Your task to perform on an android device: Open accessibility settings Image 0: 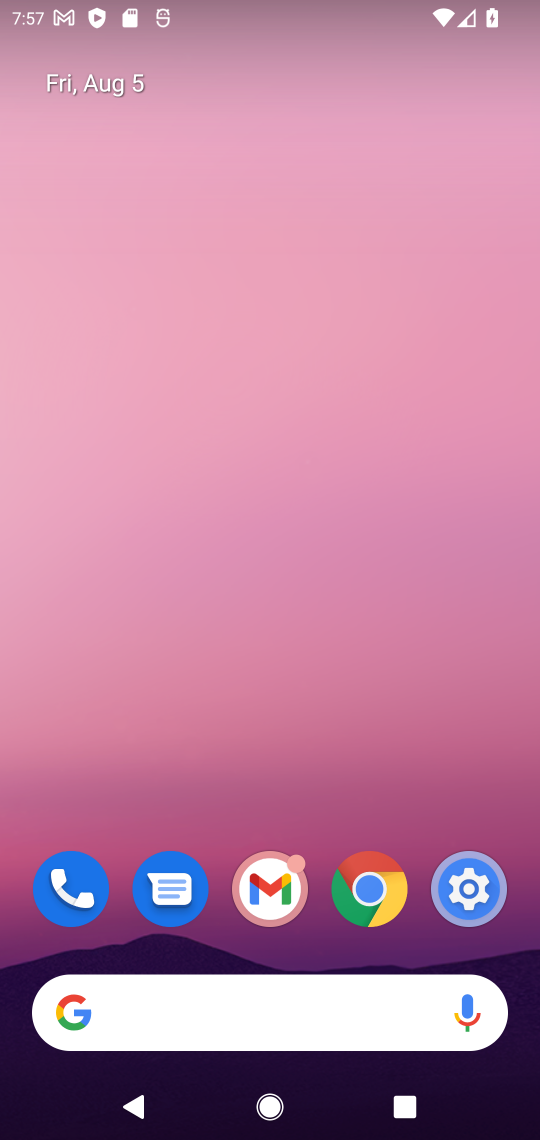
Step 0: drag from (232, 911) to (279, 241)
Your task to perform on an android device: Open accessibility settings Image 1: 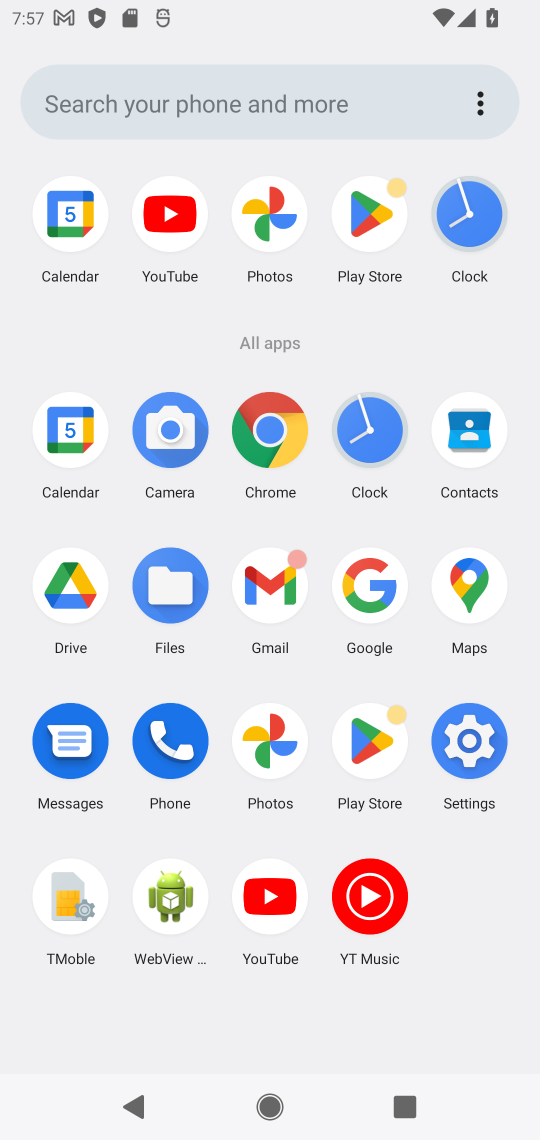
Step 1: click (474, 731)
Your task to perform on an android device: Open accessibility settings Image 2: 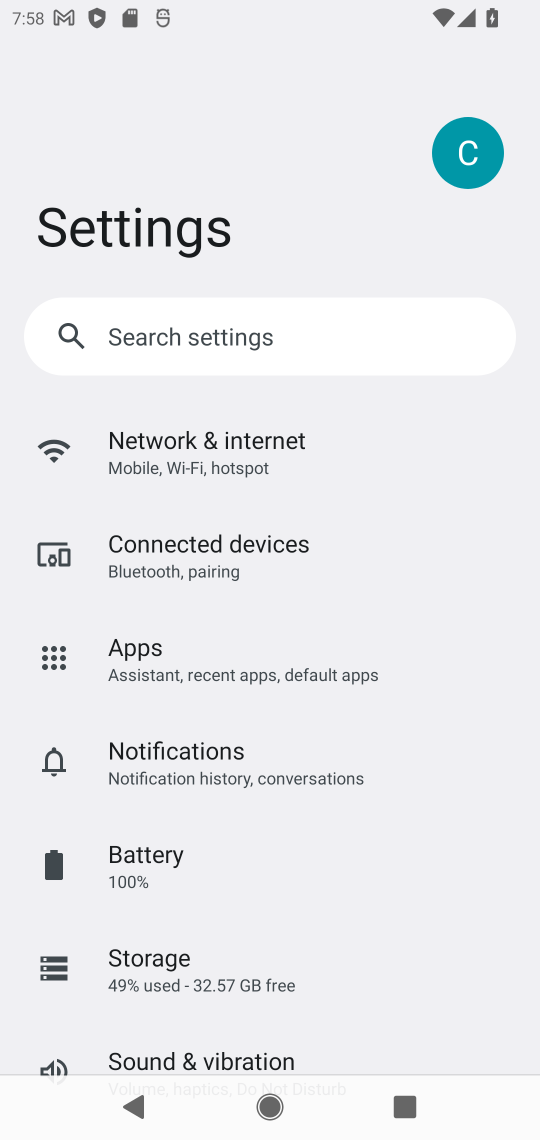
Step 2: drag from (202, 965) to (244, 370)
Your task to perform on an android device: Open accessibility settings Image 3: 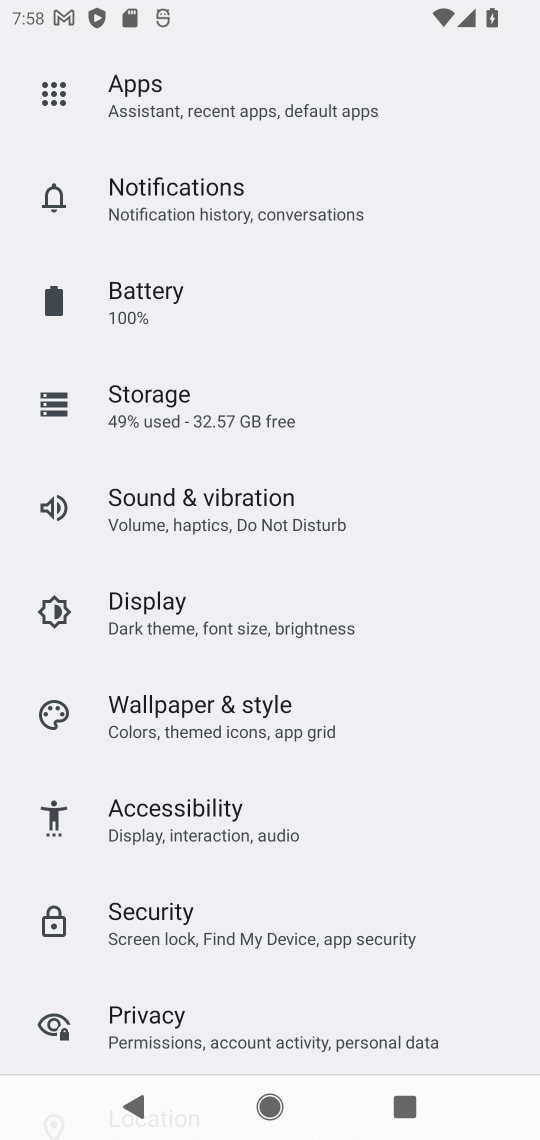
Step 3: drag from (268, 900) to (288, 299)
Your task to perform on an android device: Open accessibility settings Image 4: 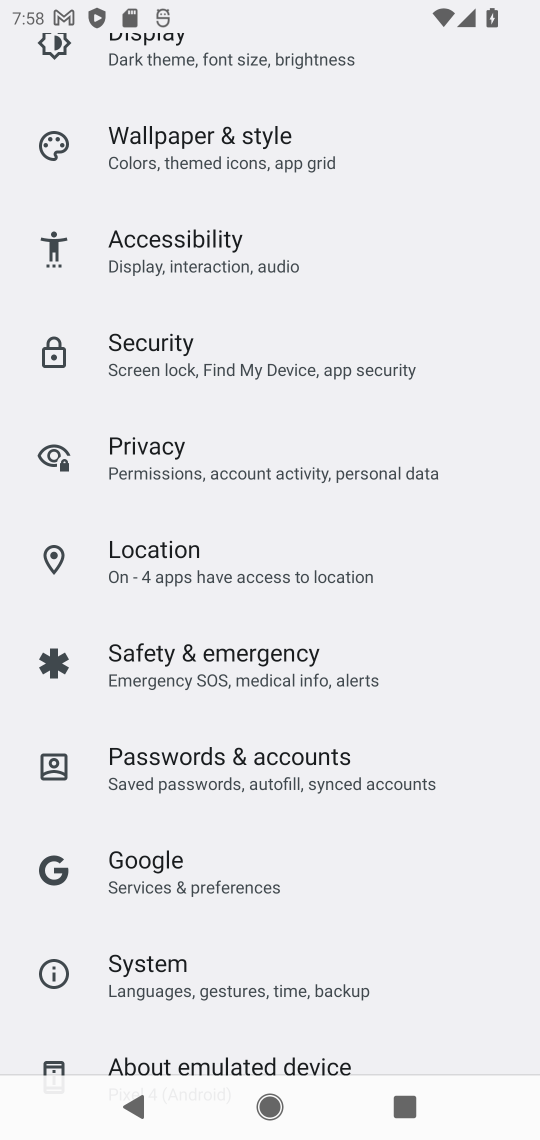
Step 4: drag from (283, 953) to (273, 464)
Your task to perform on an android device: Open accessibility settings Image 5: 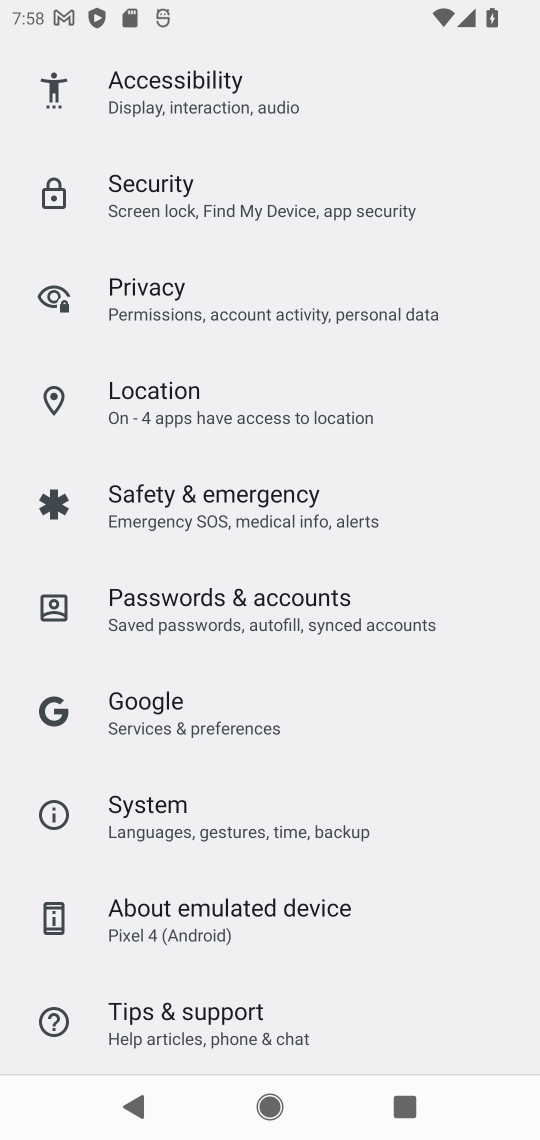
Step 5: click (205, 60)
Your task to perform on an android device: Open accessibility settings Image 6: 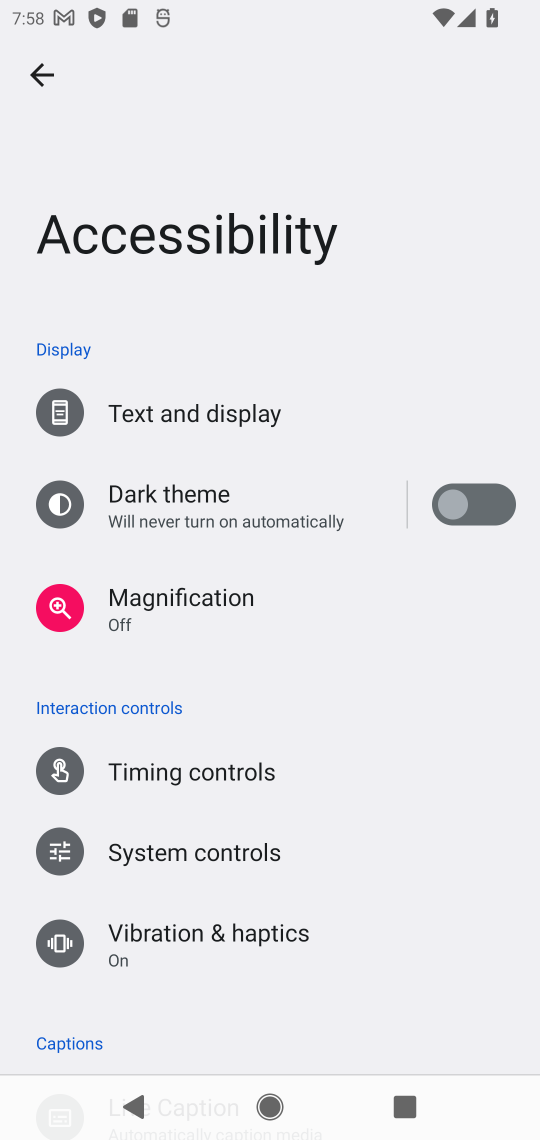
Step 6: task complete